Your task to perform on an android device: check data usage Image 0: 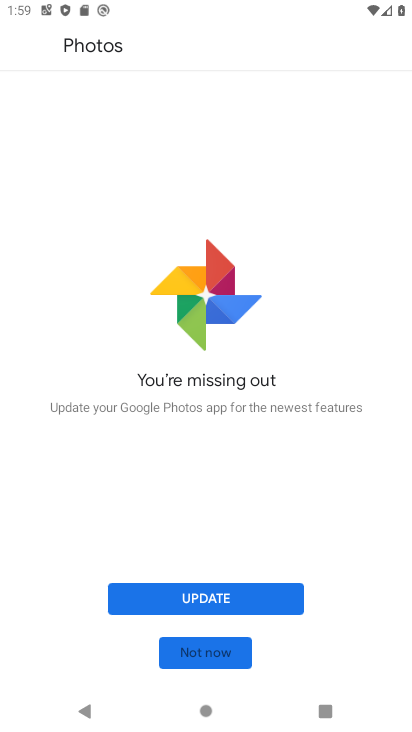
Step 0: press home button
Your task to perform on an android device: check data usage Image 1: 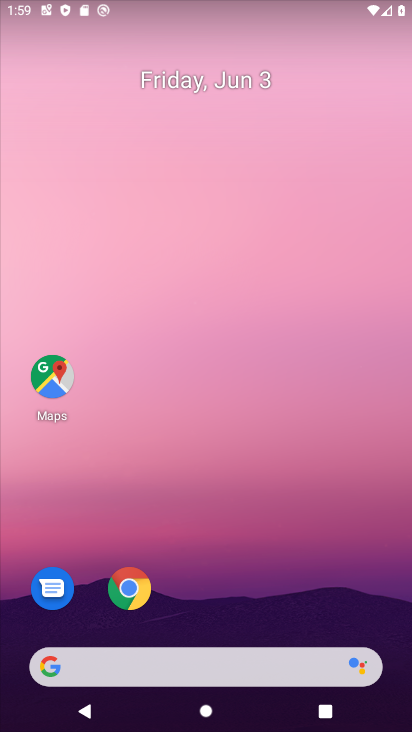
Step 1: drag from (163, 590) to (236, 141)
Your task to perform on an android device: check data usage Image 2: 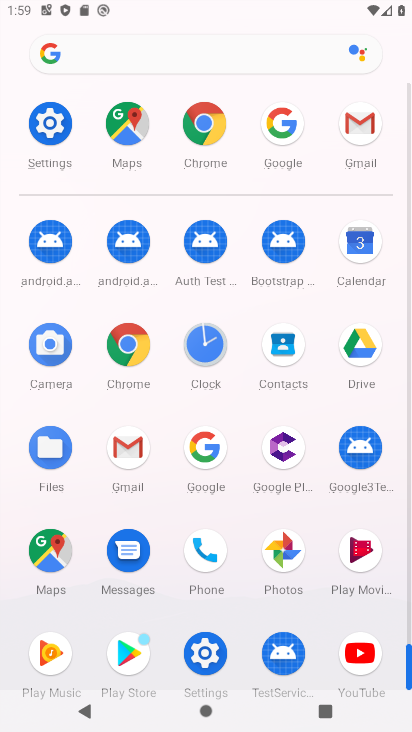
Step 2: click (208, 652)
Your task to perform on an android device: check data usage Image 3: 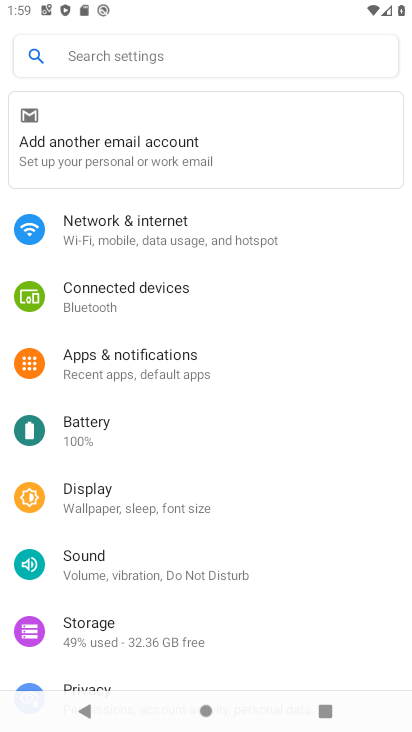
Step 3: click (171, 238)
Your task to perform on an android device: check data usage Image 4: 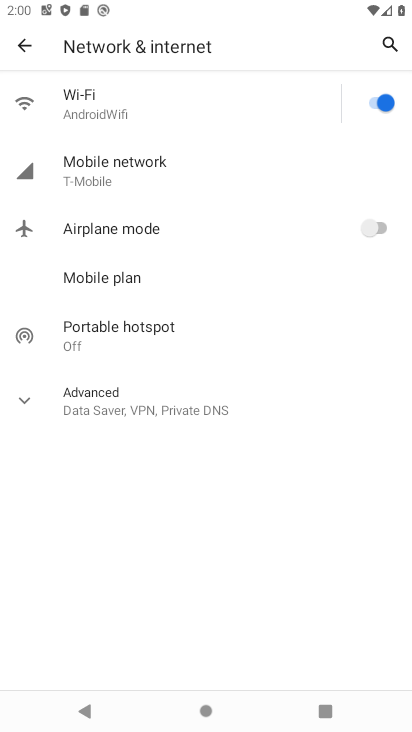
Step 4: click (168, 178)
Your task to perform on an android device: check data usage Image 5: 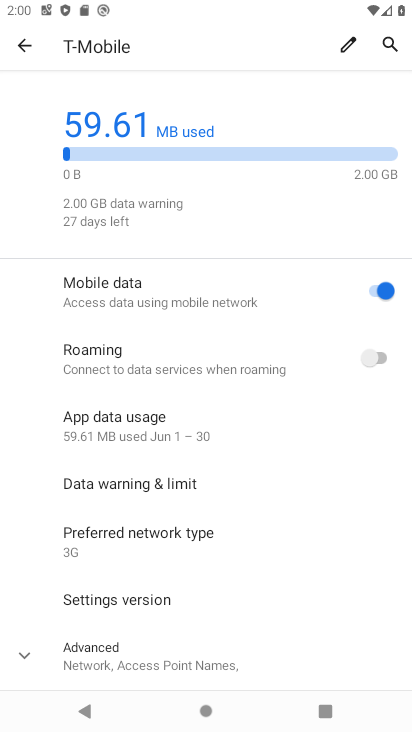
Step 5: click (176, 443)
Your task to perform on an android device: check data usage Image 6: 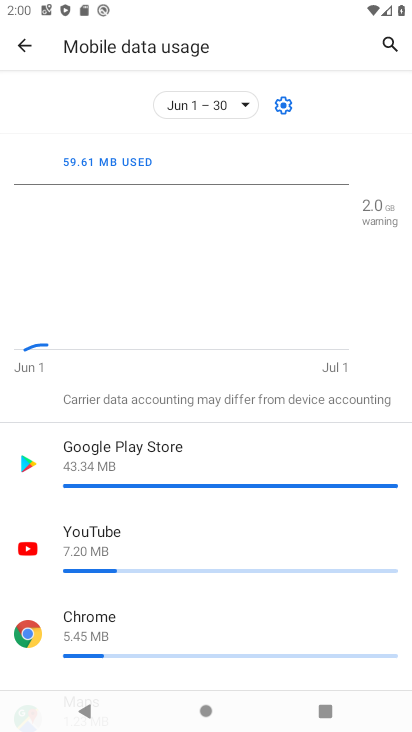
Step 6: task complete